Your task to perform on an android device: Open the map Image 0: 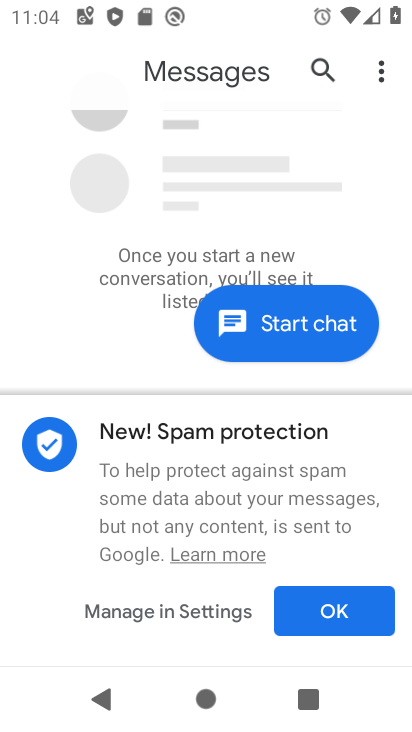
Step 0: press home button
Your task to perform on an android device: Open the map Image 1: 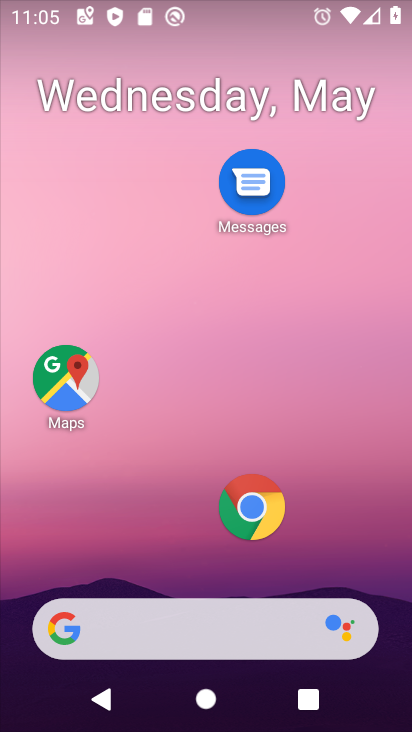
Step 1: click (71, 380)
Your task to perform on an android device: Open the map Image 2: 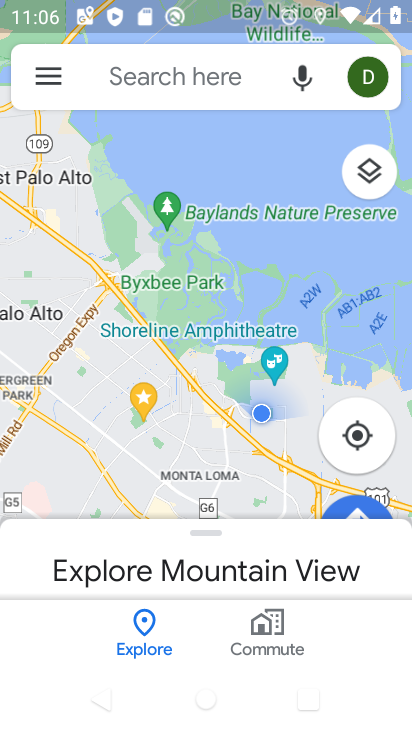
Step 2: task complete